Your task to perform on an android device: Open display settings Image 0: 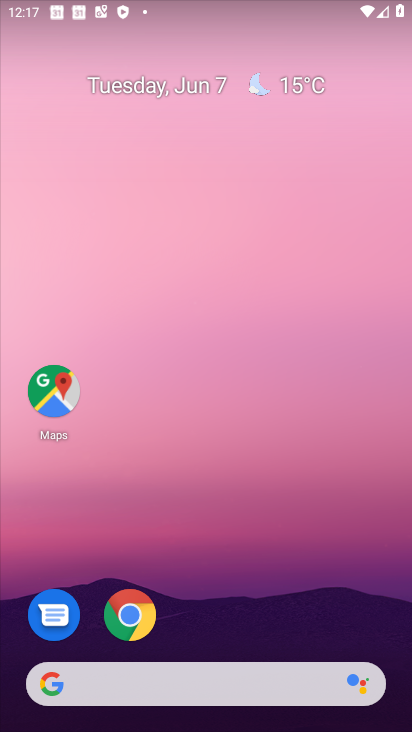
Step 0: drag from (217, 660) to (227, 396)
Your task to perform on an android device: Open display settings Image 1: 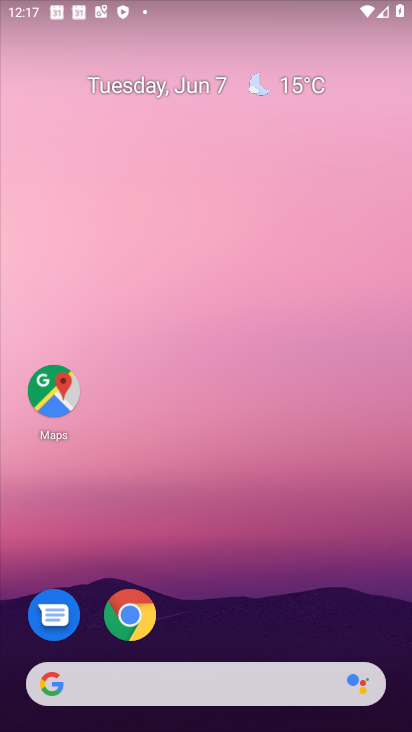
Step 1: drag from (222, 645) to (186, 400)
Your task to perform on an android device: Open display settings Image 2: 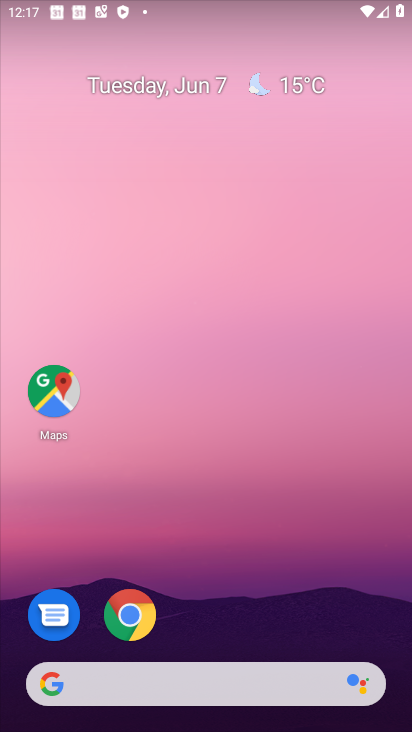
Step 2: drag from (215, 637) to (165, 354)
Your task to perform on an android device: Open display settings Image 3: 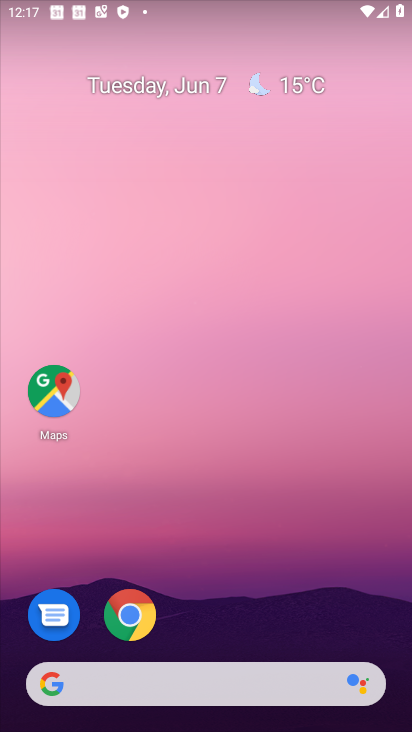
Step 3: drag from (218, 648) to (206, 195)
Your task to perform on an android device: Open display settings Image 4: 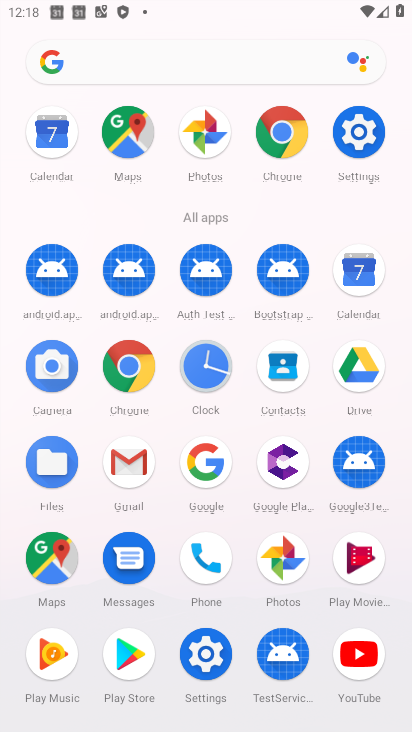
Step 4: click (361, 126)
Your task to perform on an android device: Open display settings Image 5: 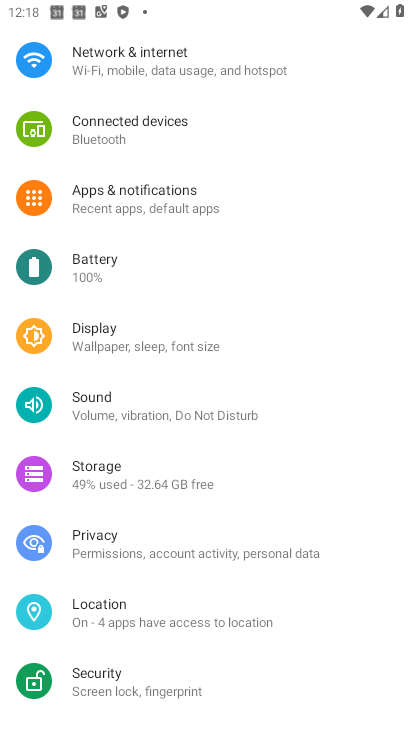
Step 5: click (108, 348)
Your task to perform on an android device: Open display settings Image 6: 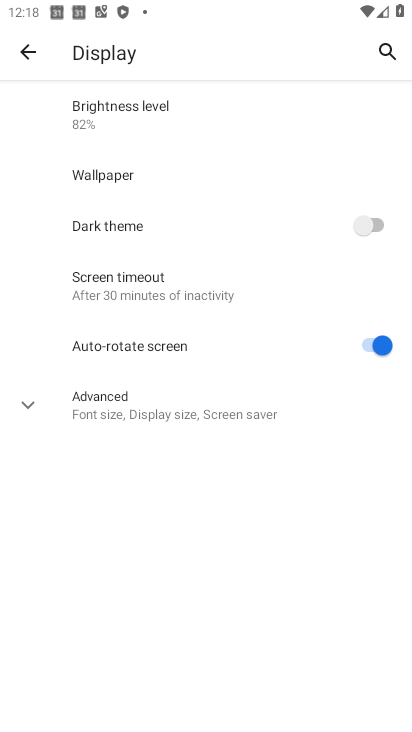
Step 6: task complete